Your task to perform on an android device: Go to accessibility settings Image 0: 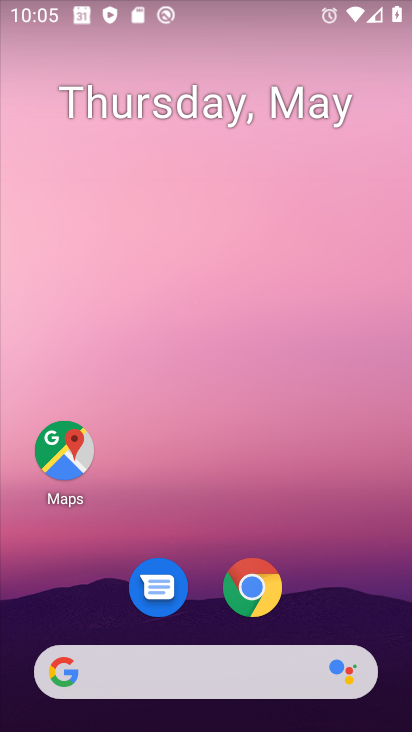
Step 0: drag from (400, 637) to (297, 18)
Your task to perform on an android device: Go to accessibility settings Image 1: 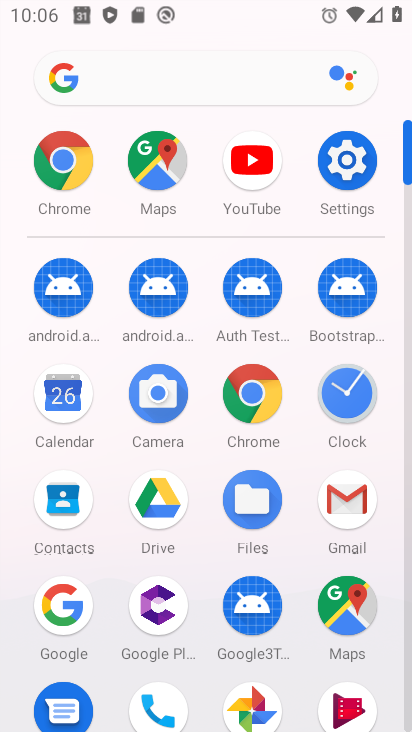
Step 1: click (362, 166)
Your task to perform on an android device: Go to accessibility settings Image 2: 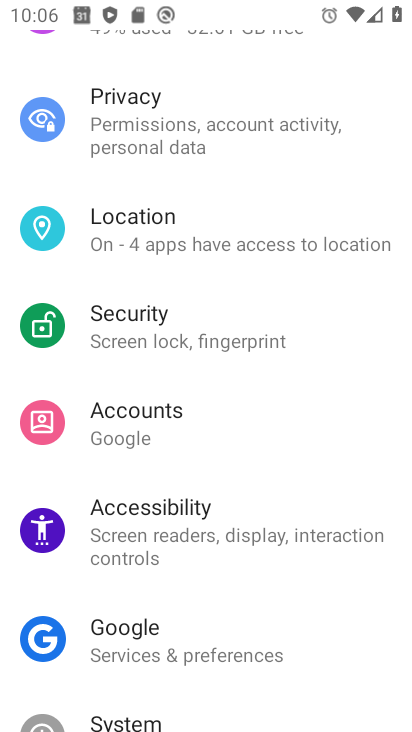
Step 2: drag from (199, 702) to (224, 228)
Your task to perform on an android device: Go to accessibility settings Image 3: 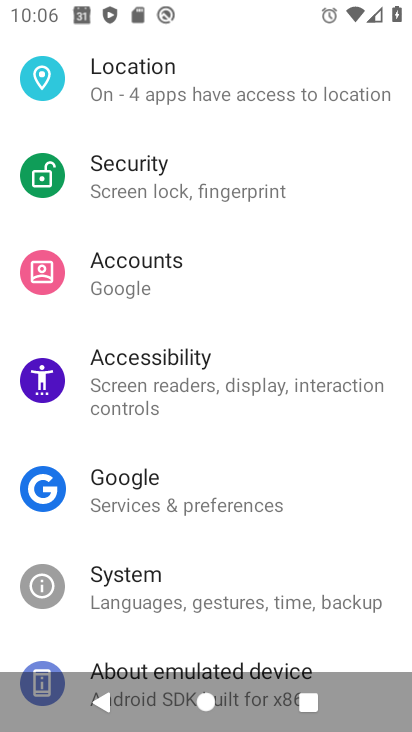
Step 3: click (159, 377)
Your task to perform on an android device: Go to accessibility settings Image 4: 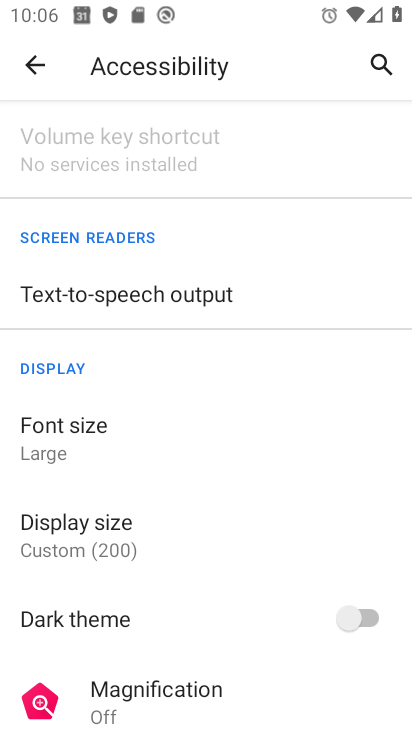
Step 4: task complete